Your task to perform on an android device: Open the map Image 0: 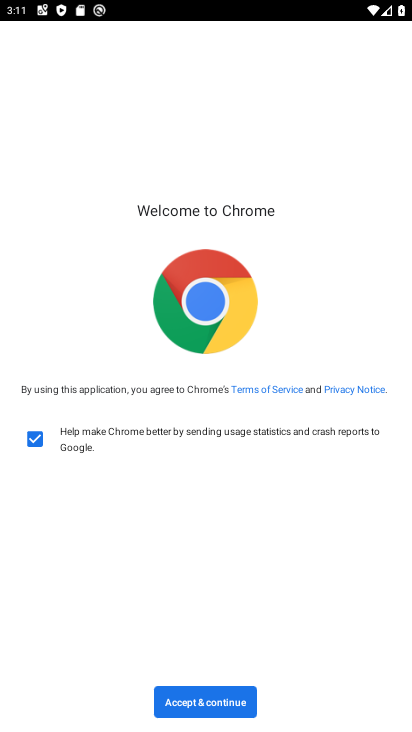
Step 0: press home button
Your task to perform on an android device: Open the map Image 1: 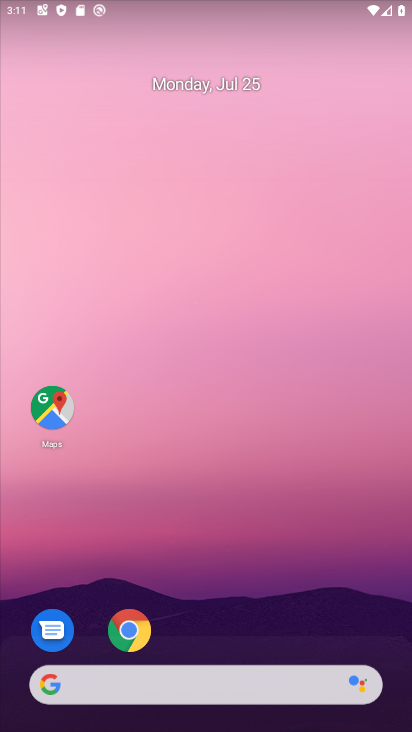
Step 1: click (48, 403)
Your task to perform on an android device: Open the map Image 2: 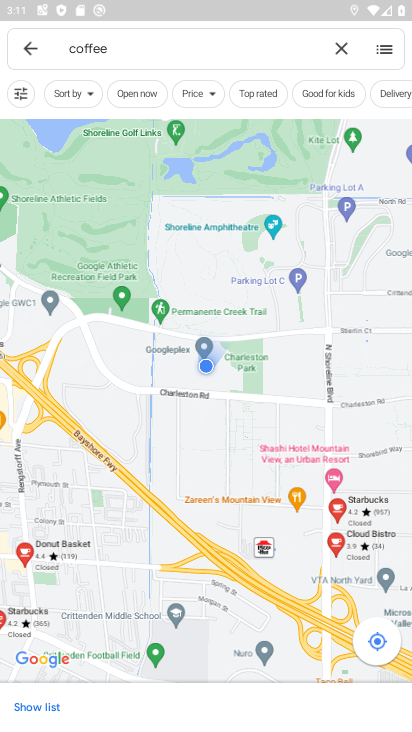
Step 2: task complete